Your task to perform on an android device: Show the shopping cart on bestbuy. Add acer nitro to the cart on bestbuy, then select checkout. Image 0: 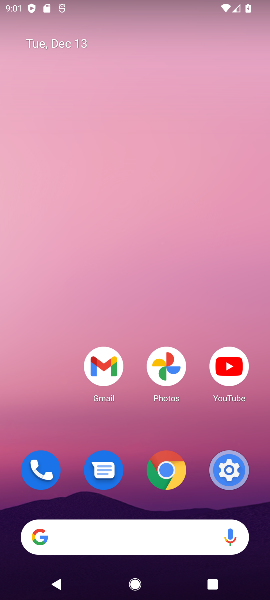
Step 0: press home button
Your task to perform on an android device: Show the shopping cart on bestbuy. Add acer nitro to the cart on bestbuy, then select checkout. Image 1: 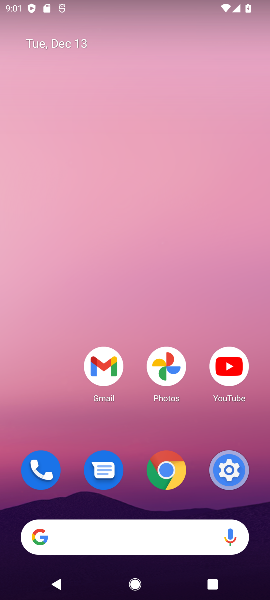
Step 1: click (54, 533)
Your task to perform on an android device: Show the shopping cart on bestbuy. Add acer nitro to the cart on bestbuy, then select checkout. Image 2: 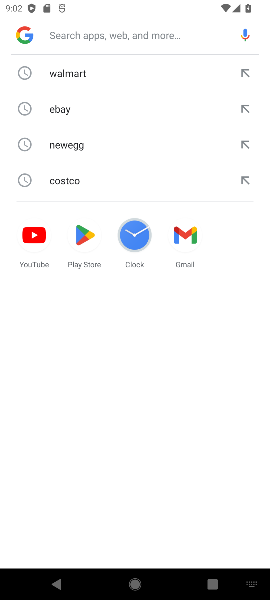
Step 2: type "bestbuy"
Your task to perform on an android device: Show the shopping cart on bestbuy. Add acer nitro to the cart on bestbuy, then select checkout. Image 3: 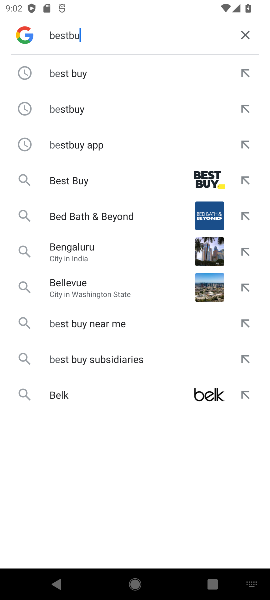
Step 3: press enter
Your task to perform on an android device: Show the shopping cart on bestbuy. Add acer nitro to the cart on bestbuy, then select checkout. Image 4: 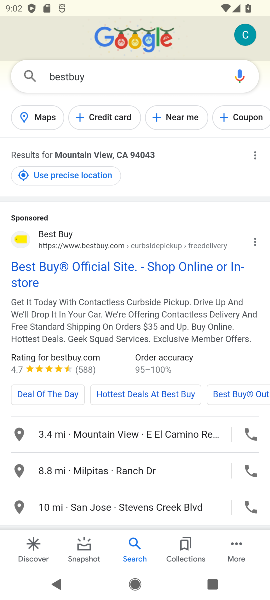
Step 4: click (74, 266)
Your task to perform on an android device: Show the shopping cart on bestbuy. Add acer nitro to the cart on bestbuy, then select checkout. Image 5: 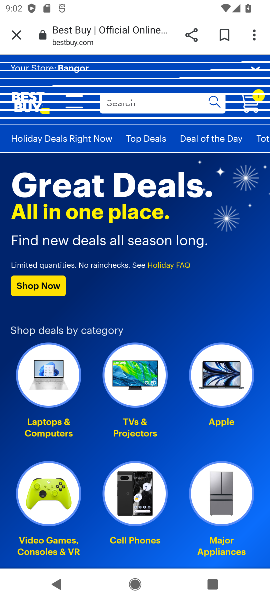
Step 5: click (252, 101)
Your task to perform on an android device: Show the shopping cart on bestbuy. Add acer nitro to the cart on bestbuy, then select checkout. Image 6: 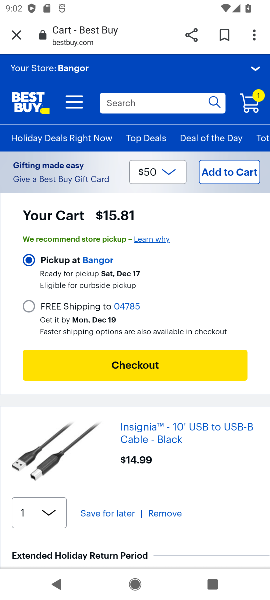
Step 6: click (127, 100)
Your task to perform on an android device: Show the shopping cart on bestbuy. Add acer nitro to the cart on bestbuy, then select checkout. Image 7: 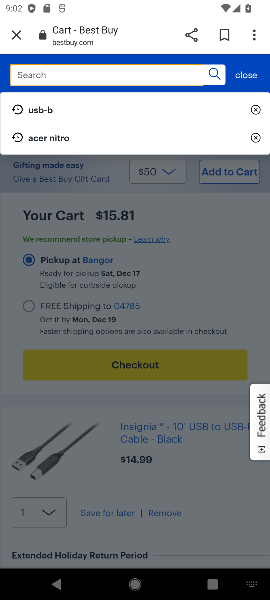
Step 7: type "acer nitro"
Your task to perform on an android device: Show the shopping cart on bestbuy. Add acer nitro to the cart on bestbuy, then select checkout. Image 8: 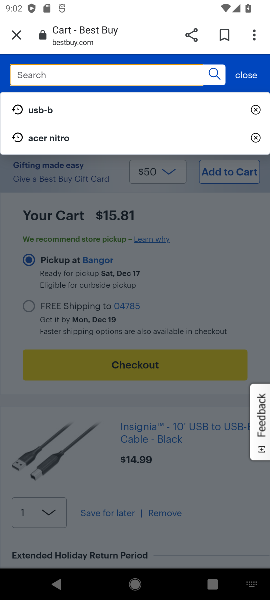
Step 8: press enter
Your task to perform on an android device: Show the shopping cart on bestbuy. Add acer nitro to the cart on bestbuy, then select checkout. Image 9: 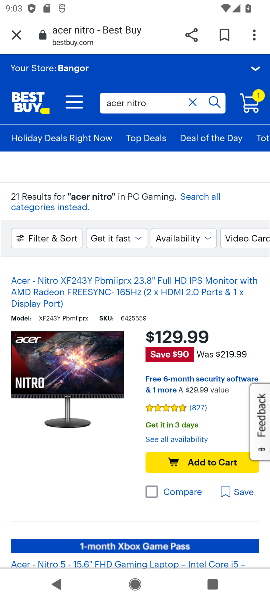
Step 9: click (204, 462)
Your task to perform on an android device: Show the shopping cart on bestbuy. Add acer nitro to the cart on bestbuy, then select checkout. Image 10: 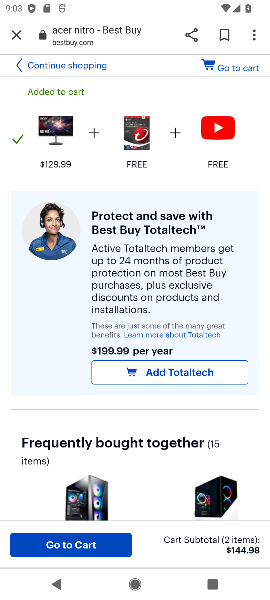
Step 10: click (66, 547)
Your task to perform on an android device: Show the shopping cart on bestbuy. Add acer nitro to the cart on bestbuy, then select checkout. Image 11: 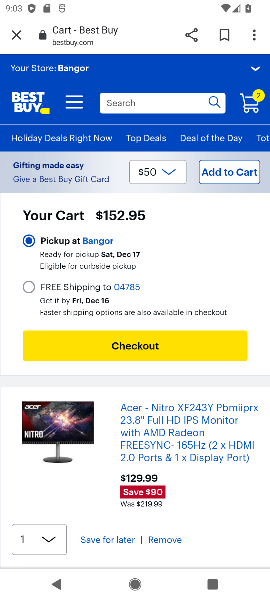
Step 11: click (135, 344)
Your task to perform on an android device: Show the shopping cart on bestbuy. Add acer nitro to the cart on bestbuy, then select checkout. Image 12: 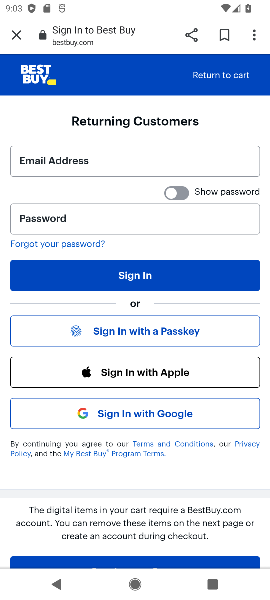
Step 12: task complete